Your task to perform on an android device: Go to settings Image 0: 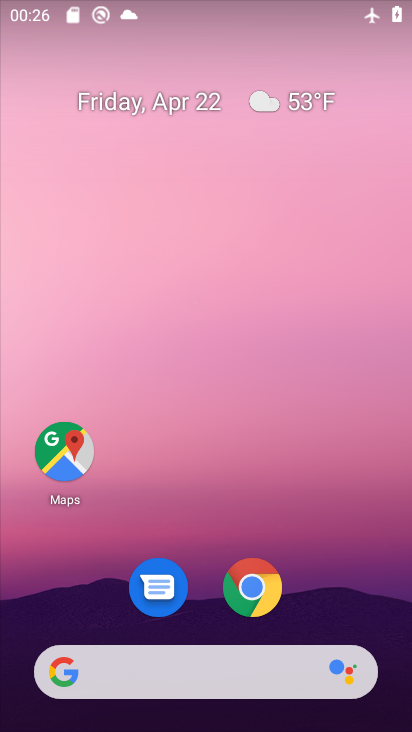
Step 0: drag from (308, 581) to (257, 124)
Your task to perform on an android device: Go to settings Image 1: 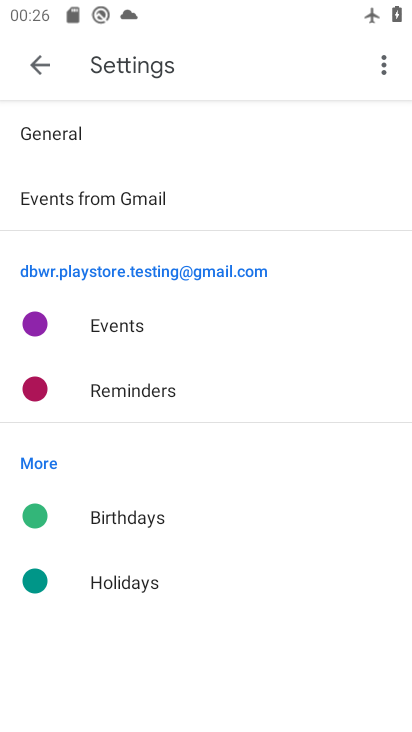
Step 1: press home button
Your task to perform on an android device: Go to settings Image 2: 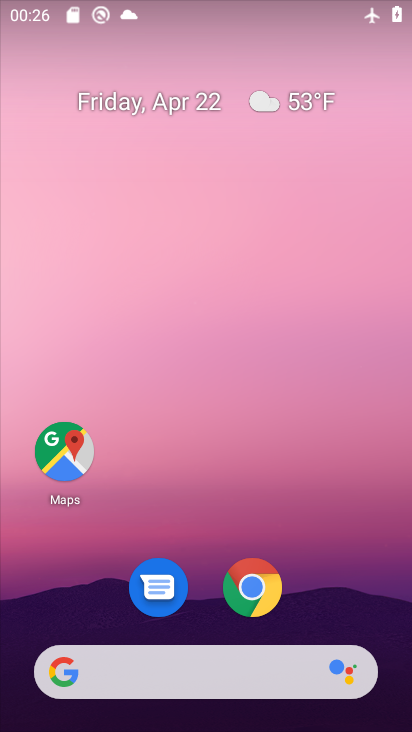
Step 2: drag from (313, 606) to (291, 155)
Your task to perform on an android device: Go to settings Image 3: 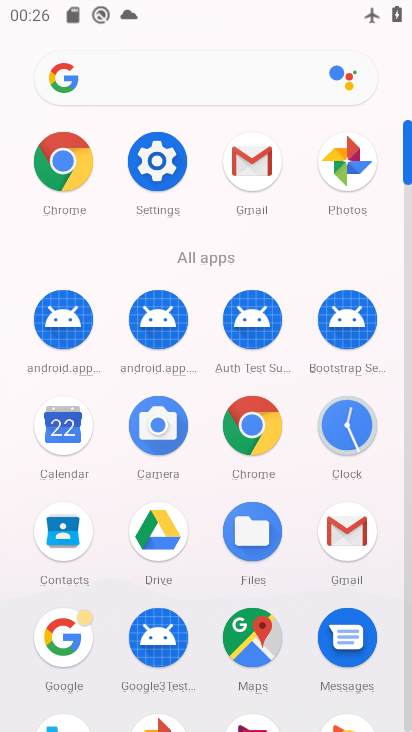
Step 3: click (136, 153)
Your task to perform on an android device: Go to settings Image 4: 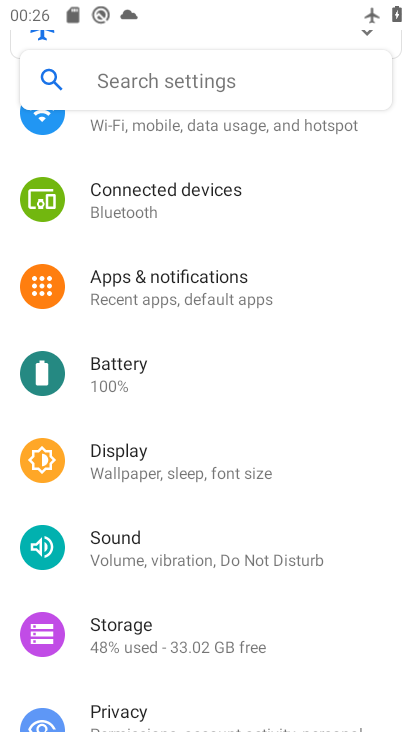
Step 4: task complete